Your task to perform on an android device: show emergency info Image 0: 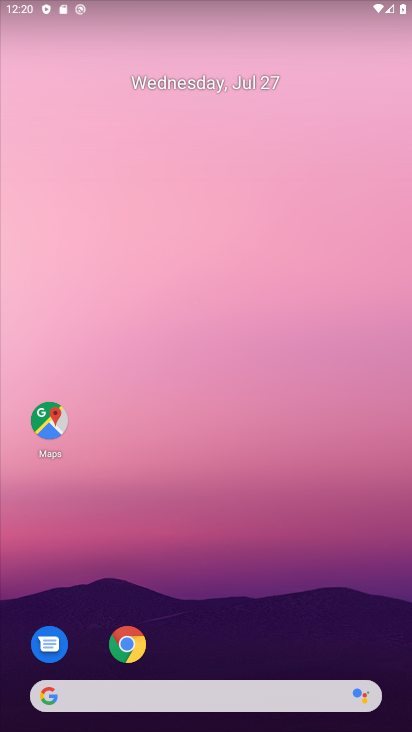
Step 0: drag from (218, 604) to (262, 21)
Your task to perform on an android device: show emergency info Image 1: 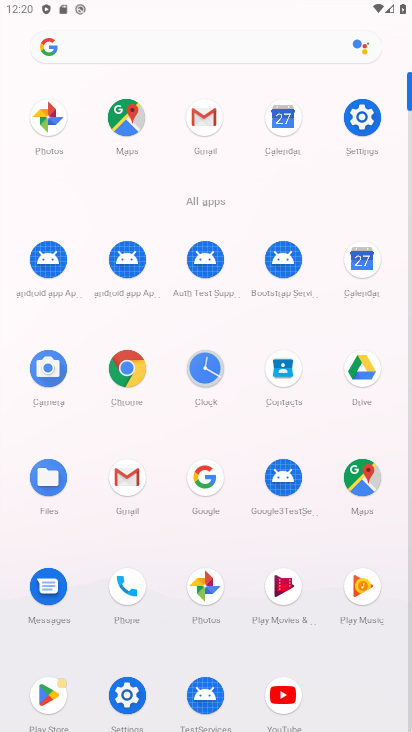
Step 1: click (126, 683)
Your task to perform on an android device: show emergency info Image 2: 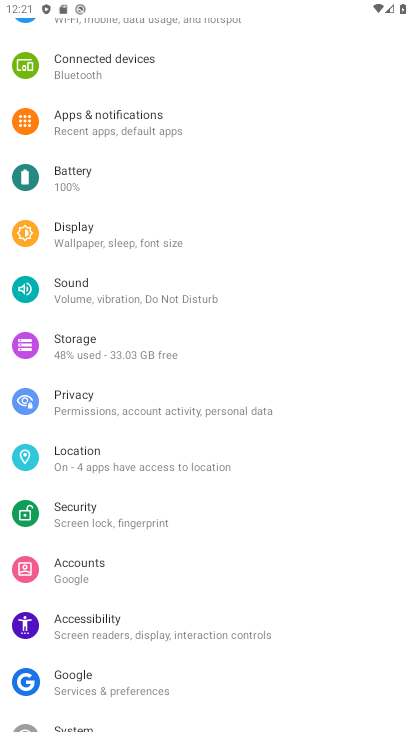
Step 2: drag from (121, 462) to (166, 79)
Your task to perform on an android device: show emergency info Image 3: 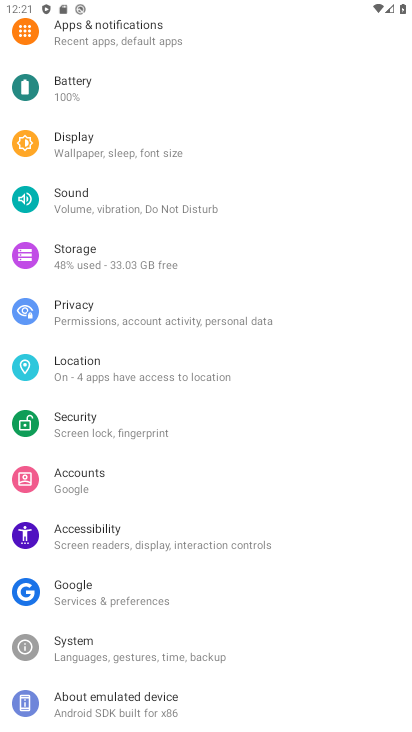
Step 3: click (104, 697)
Your task to perform on an android device: show emergency info Image 4: 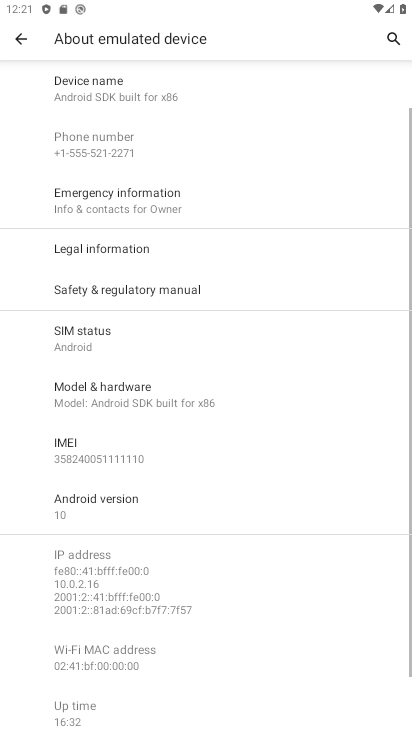
Step 4: click (135, 197)
Your task to perform on an android device: show emergency info Image 5: 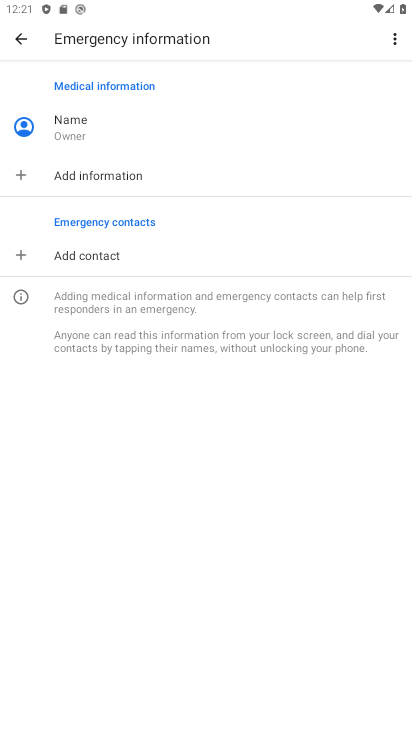
Step 5: task complete